Your task to perform on an android device: Open Google Chrome and click the shortcut for Amazon.com Image 0: 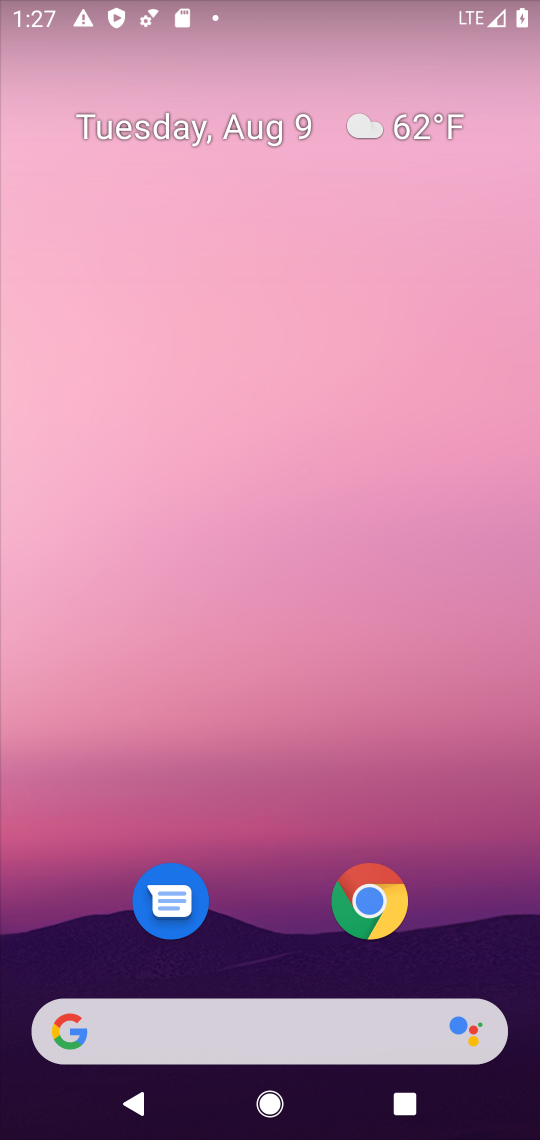
Step 0: click (378, 899)
Your task to perform on an android device: Open Google Chrome and click the shortcut for Amazon.com Image 1: 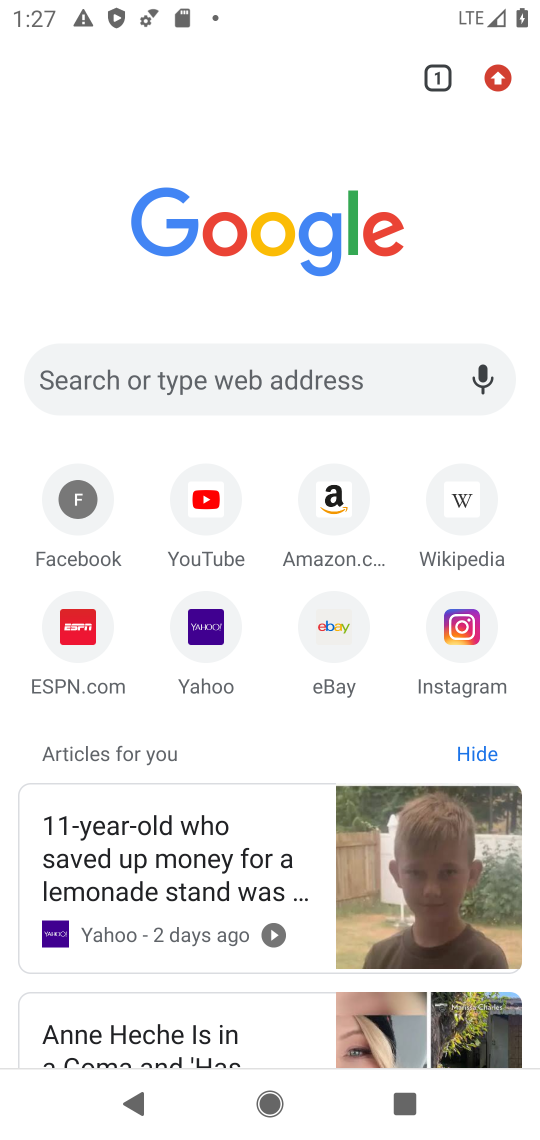
Step 1: click (340, 494)
Your task to perform on an android device: Open Google Chrome and click the shortcut for Amazon.com Image 2: 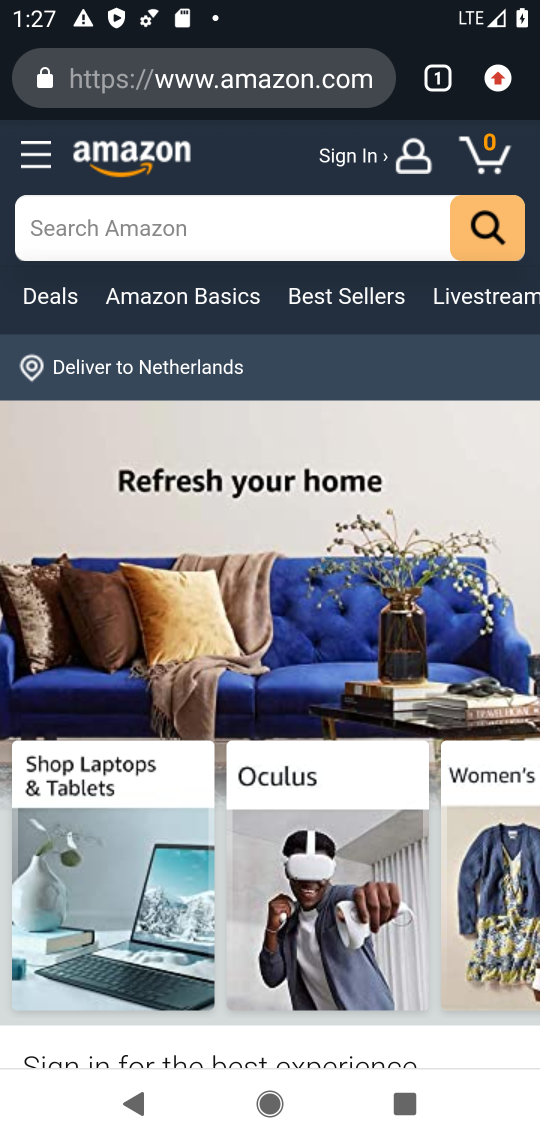
Step 2: task complete